Your task to perform on an android device: make emails show in primary in the gmail app Image 0: 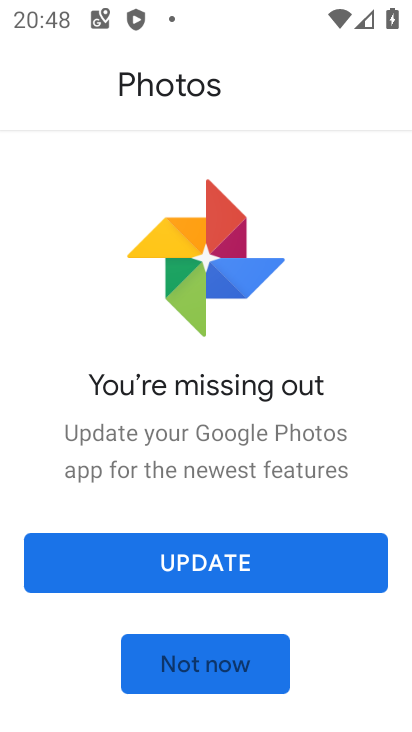
Step 0: press home button
Your task to perform on an android device: make emails show in primary in the gmail app Image 1: 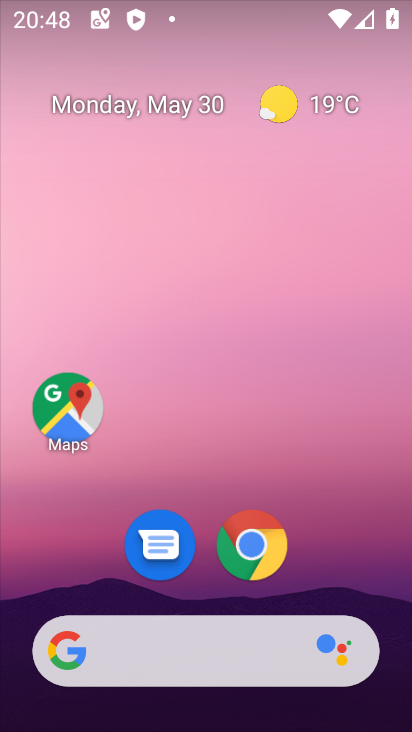
Step 1: drag from (320, 573) to (282, 215)
Your task to perform on an android device: make emails show in primary in the gmail app Image 2: 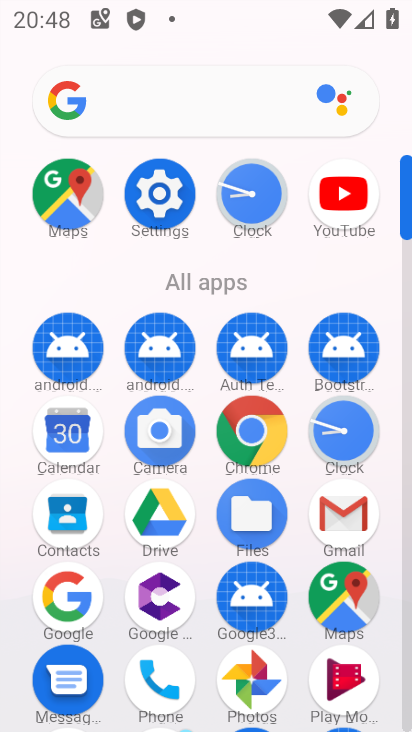
Step 2: click (344, 513)
Your task to perform on an android device: make emails show in primary in the gmail app Image 3: 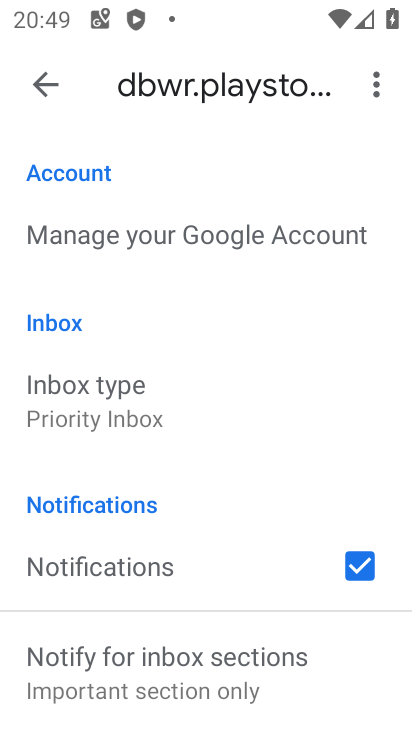
Step 3: click (123, 398)
Your task to perform on an android device: make emails show in primary in the gmail app Image 4: 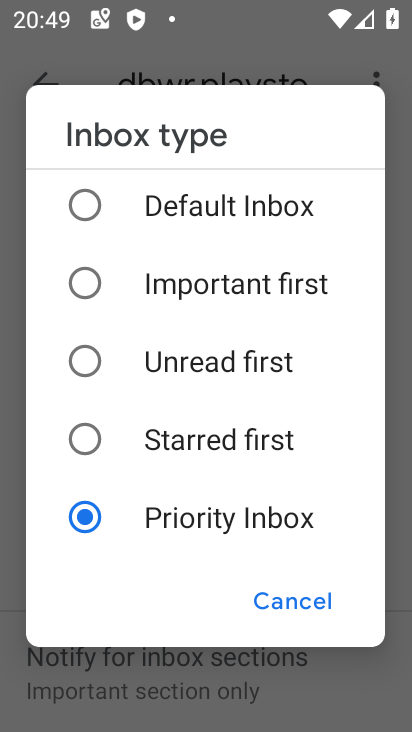
Step 4: click (91, 202)
Your task to perform on an android device: make emails show in primary in the gmail app Image 5: 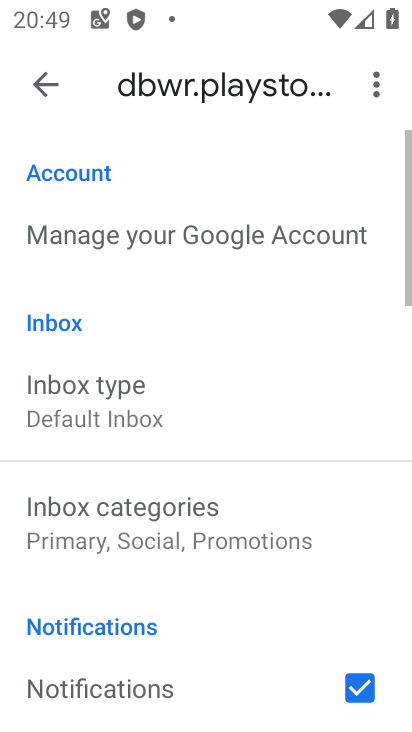
Step 5: click (192, 544)
Your task to perform on an android device: make emails show in primary in the gmail app Image 6: 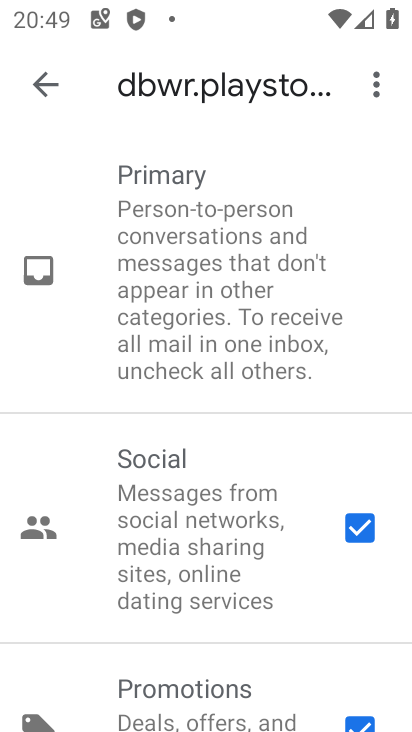
Step 6: drag from (308, 558) to (311, 294)
Your task to perform on an android device: make emails show in primary in the gmail app Image 7: 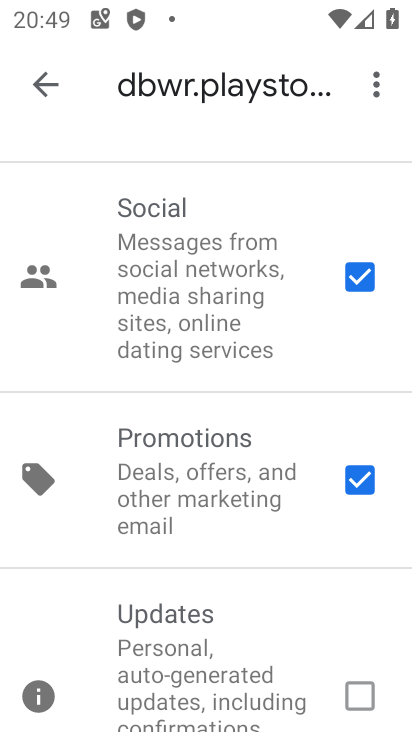
Step 7: click (343, 278)
Your task to perform on an android device: make emails show in primary in the gmail app Image 8: 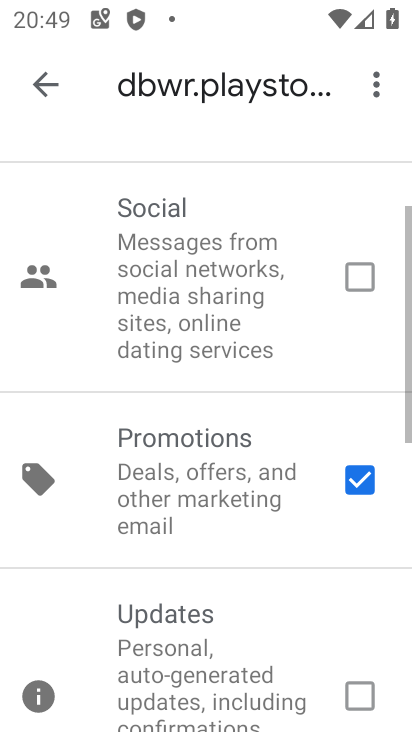
Step 8: click (359, 484)
Your task to perform on an android device: make emails show in primary in the gmail app Image 9: 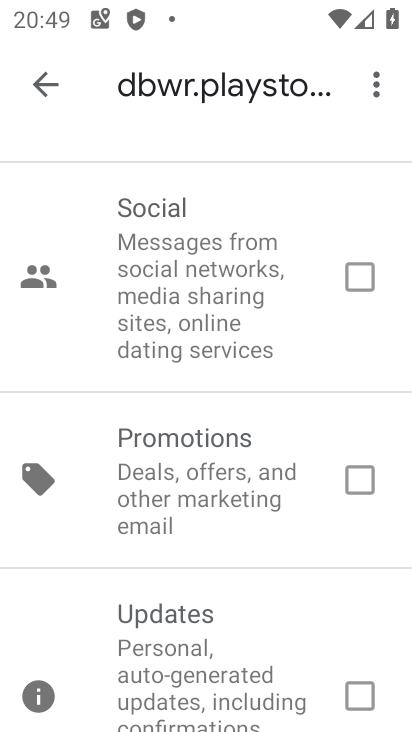
Step 9: task complete